Your task to perform on an android device: Go to Android settings Image 0: 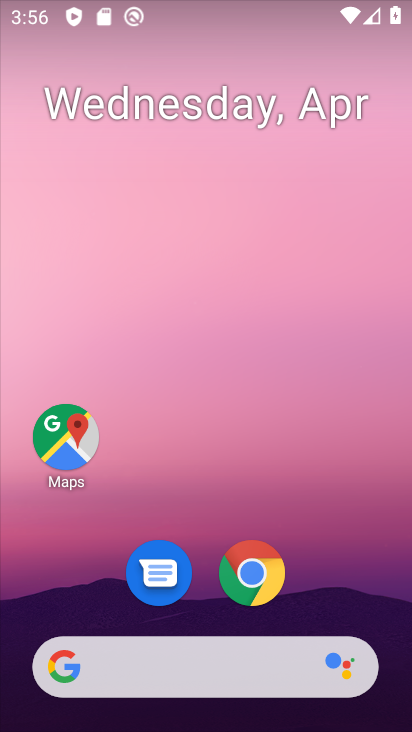
Step 0: drag from (327, 292) to (316, 195)
Your task to perform on an android device: Go to Android settings Image 1: 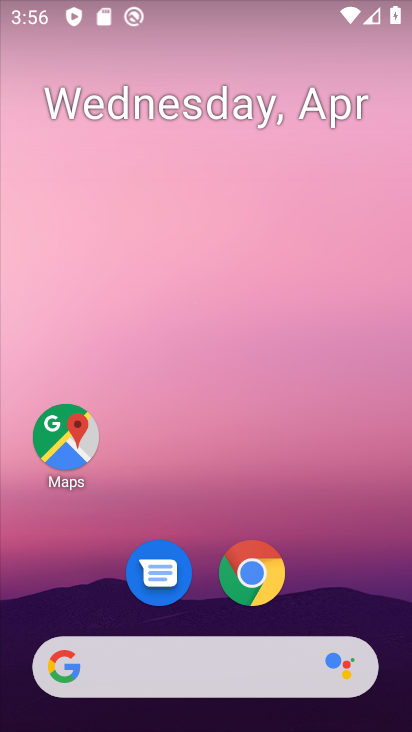
Step 1: drag from (371, 509) to (407, 147)
Your task to perform on an android device: Go to Android settings Image 2: 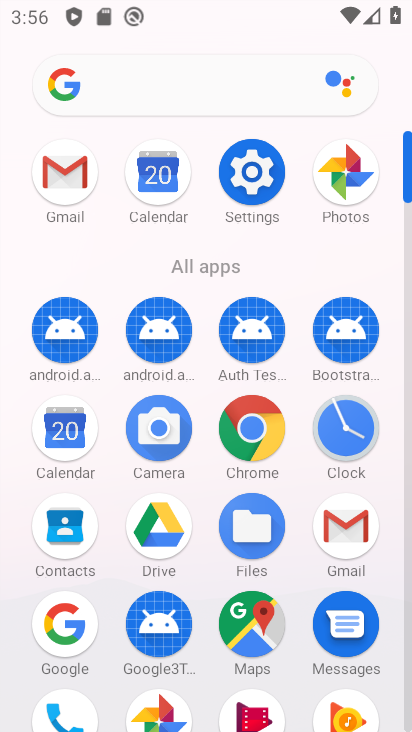
Step 2: click (247, 165)
Your task to perform on an android device: Go to Android settings Image 3: 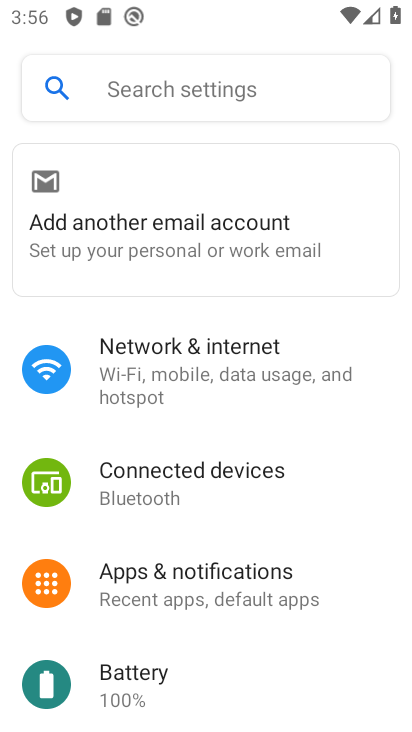
Step 3: task complete